Your task to perform on an android device: Google the capital of Uruguay Image 0: 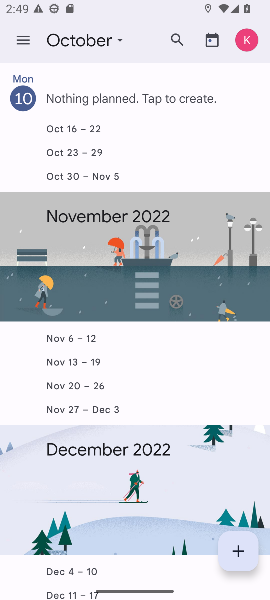
Step 0: press home button
Your task to perform on an android device: Google the capital of Uruguay Image 1: 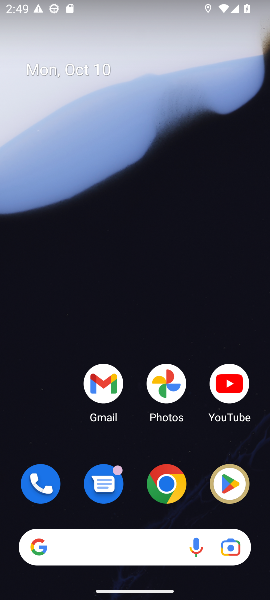
Step 1: click (164, 478)
Your task to perform on an android device: Google the capital of Uruguay Image 2: 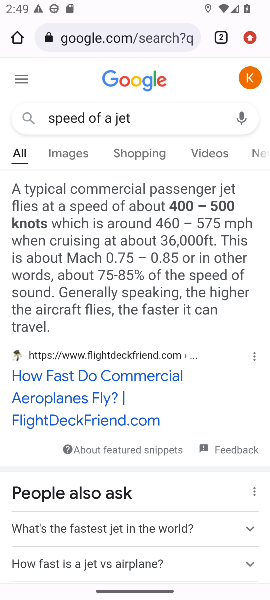
Step 2: click (144, 38)
Your task to perform on an android device: Google the capital of Uruguay Image 3: 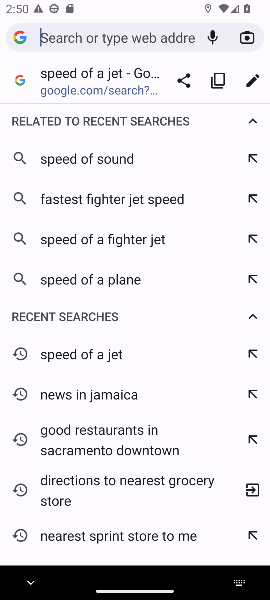
Step 3: type "capital of uruguay"
Your task to perform on an android device: Google the capital of Uruguay Image 4: 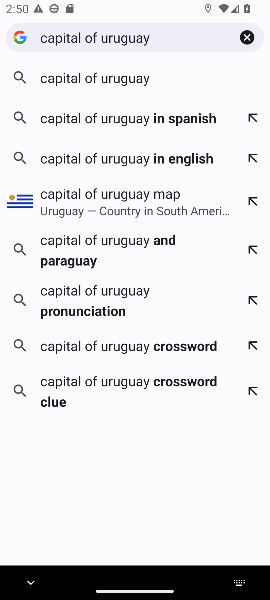
Step 4: click (130, 89)
Your task to perform on an android device: Google the capital of Uruguay Image 5: 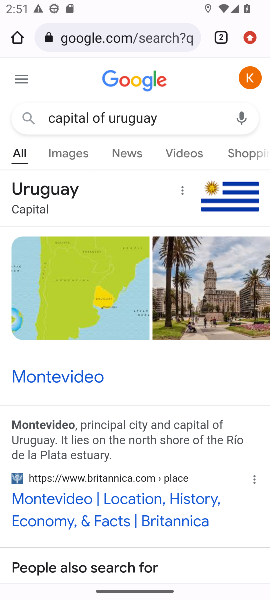
Step 5: task complete